Your task to perform on an android device: Search for sushi restaurants on Maps Image 0: 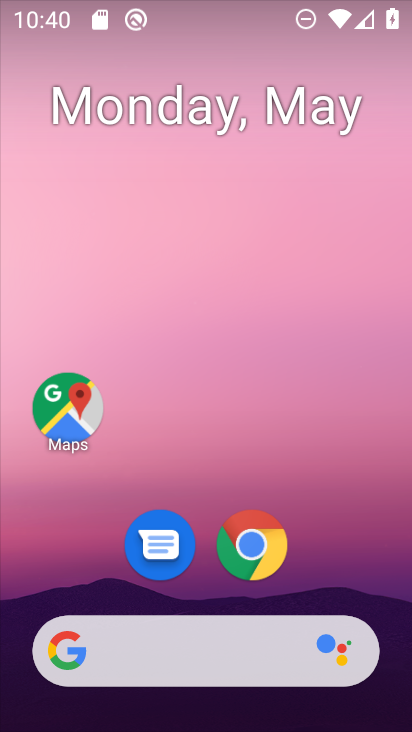
Step 0: click (62, 410)
Your task to perform on an android device: Search for sushi restaurants on Maps Image 1: 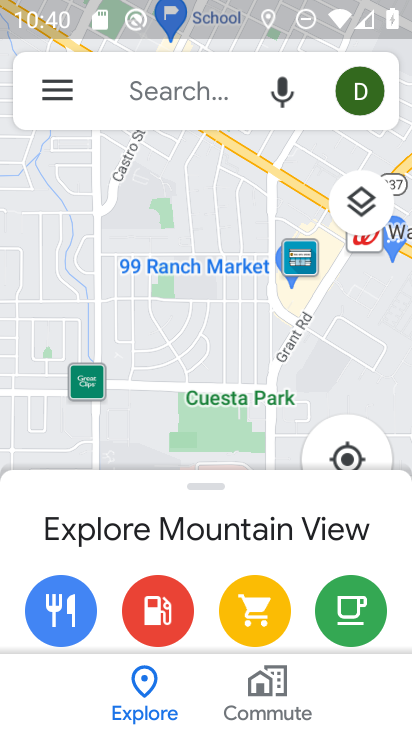
Step 1: click (156, 91)
Your task to perform on an android device: Search for sushi restaurants on Maps Image 2: 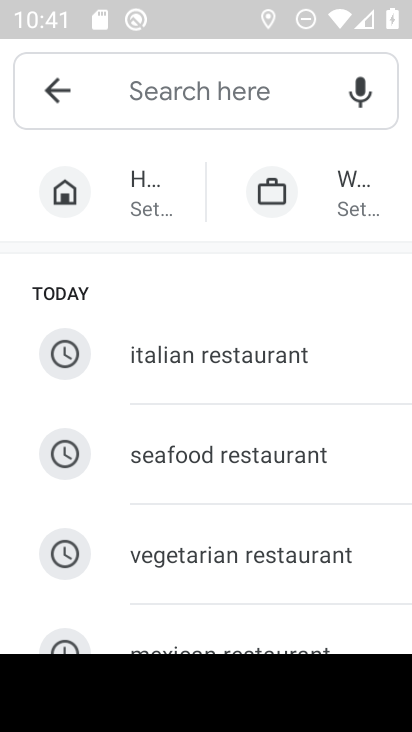
Step 2: type "sushi restaurants"
Your task to perform on an android device: Search for sushi restaurants on Maps Image 3: 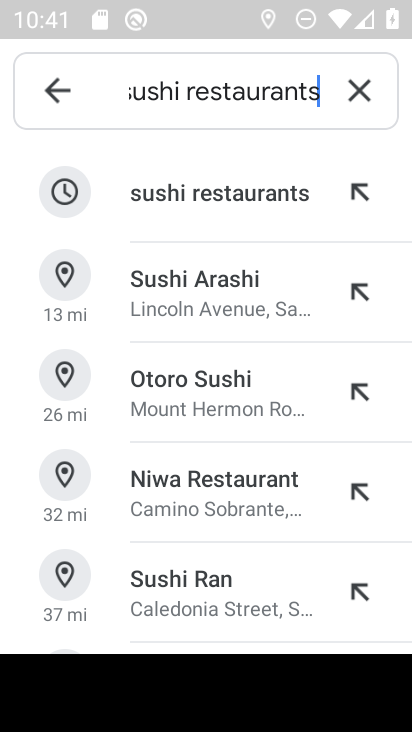
Step 3: click (185, 198)
Your task to perform on an android device: Search for sushi restaurants on Maps Image 4: 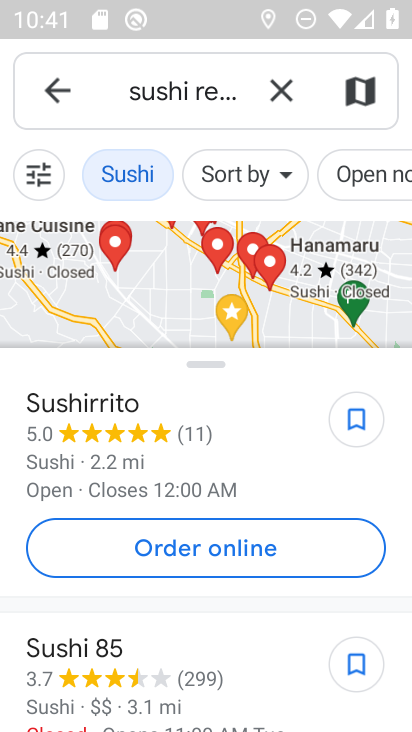
Step 4: task complete